Your task to perform on an android device: Open settings Image 0: 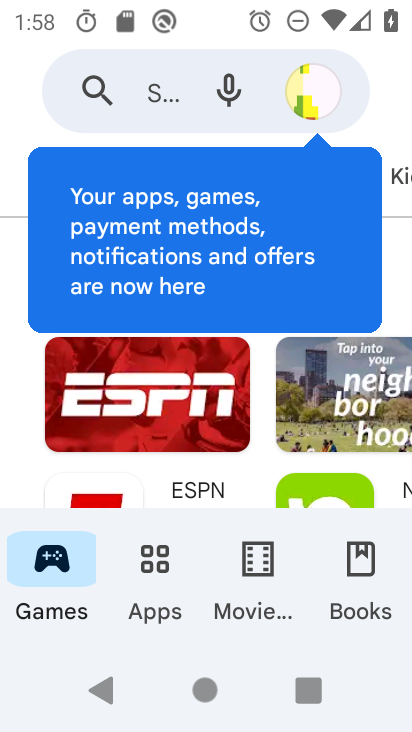
Step 0: press home button
Your task to perform on an android device: Open settings Image 1: 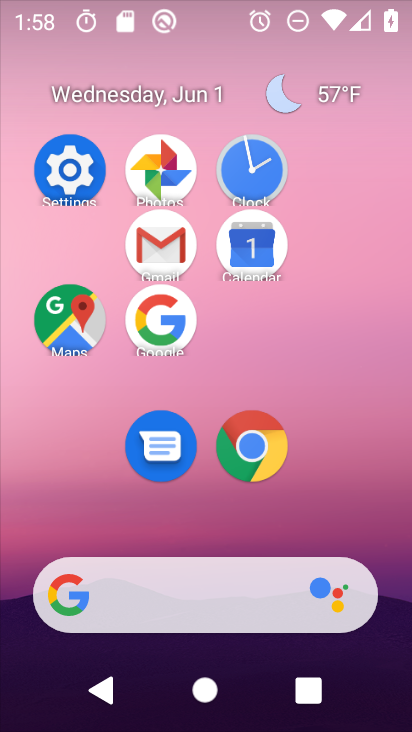
Step 1: click (72, 151)
Your task to perform on an android device: Open settings Image 2: 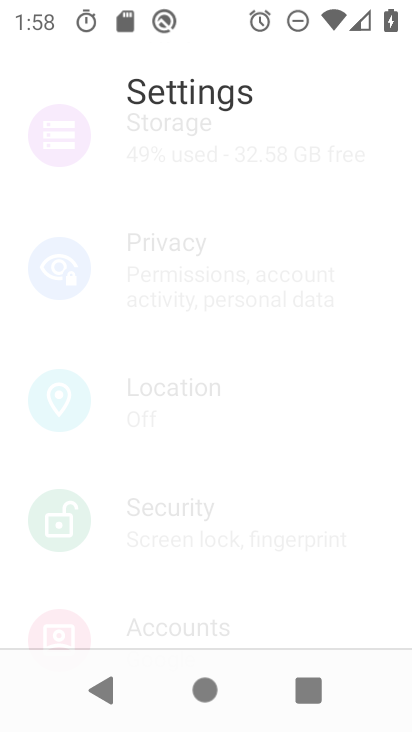
Step 2: task complete